Your task to perform on an android device: Open sound settings Image 0: 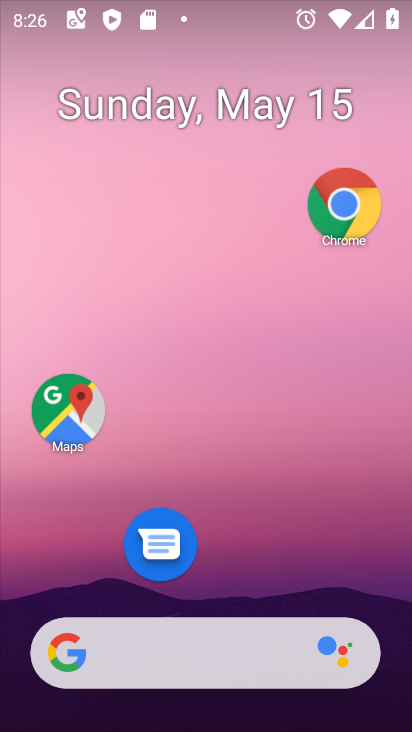
Step 0: drag from (267, 588) to (307, 81)
Your task to perform on an android device: Open sound settings Image 1: 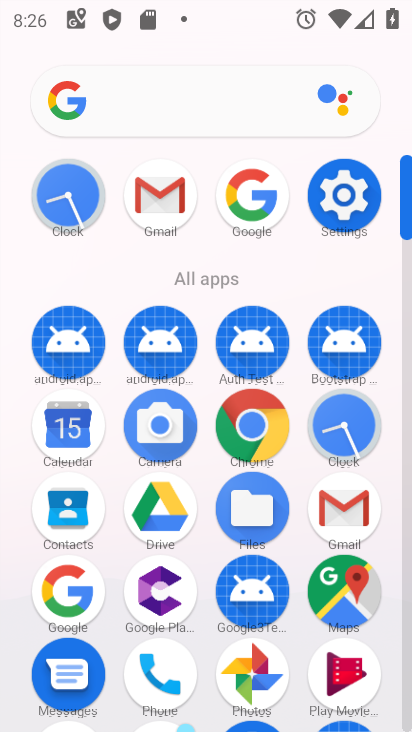
Step 1: click (355, 185)
Your task to perform on an android device: Open sound settings Image 2: 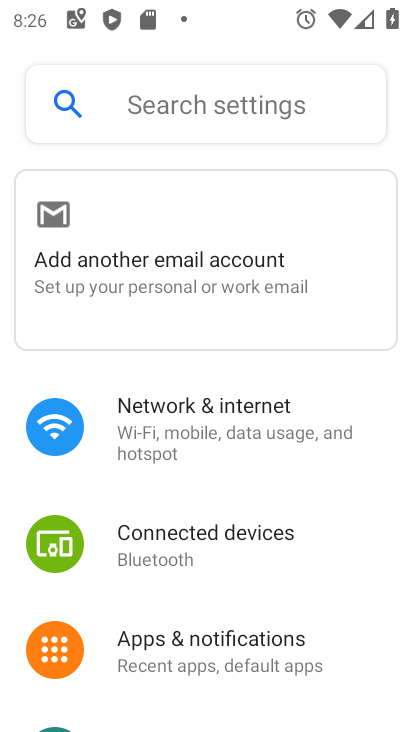
Step 2: drag from (236, 575) to (219, 430)
Your task to perform on an android device: Open sound settings Image 3: 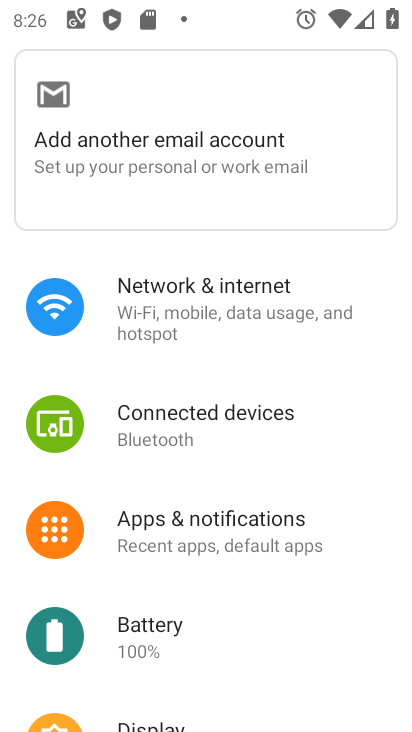
Step 3: drag from (202, 577) to (174, 407)
Your task to perform on an android device: Open sound settings Image 4: 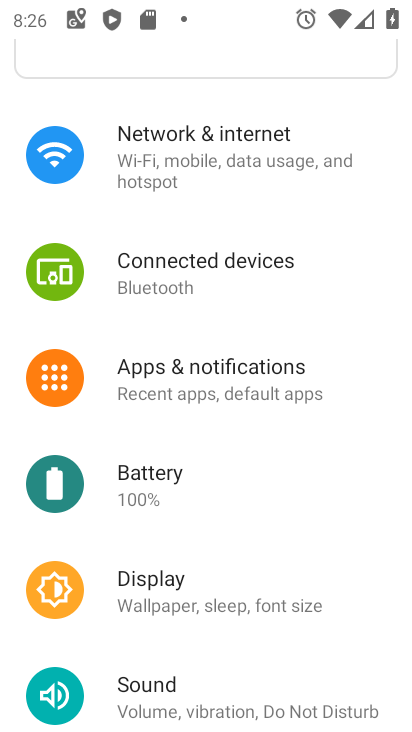
Step 4: drag from (214, 577) to (204, 398)
Your task to perform on an android device: Open sound settings Image 5: 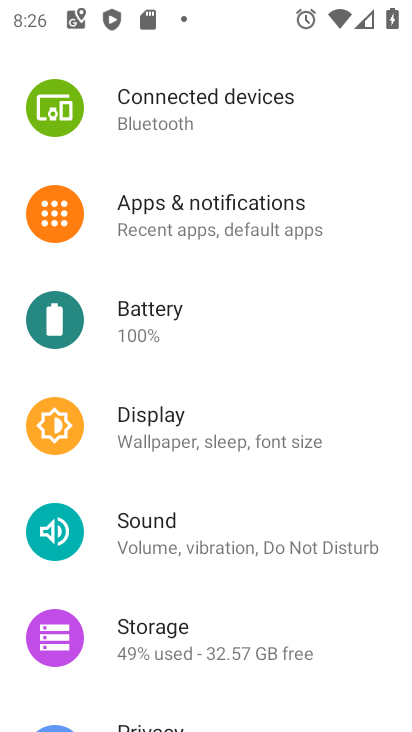
Step 5: click (176, 531)
Your task to perform on an android device: Open sound settings Image 6: 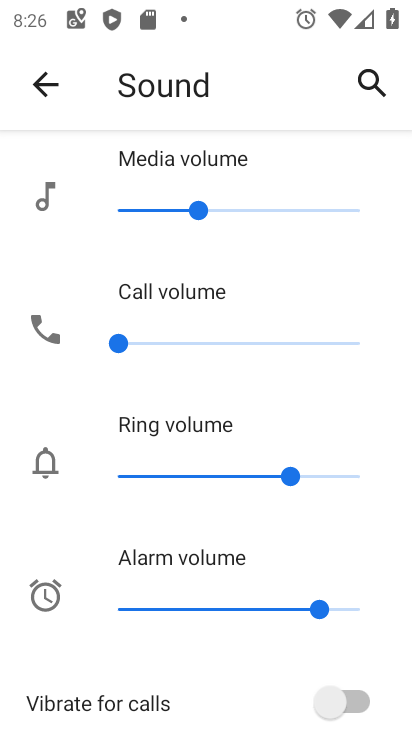
Step 6: task complete